Your task to perform on an android device: open the mobile data screen to see how much data has been used Image 0: 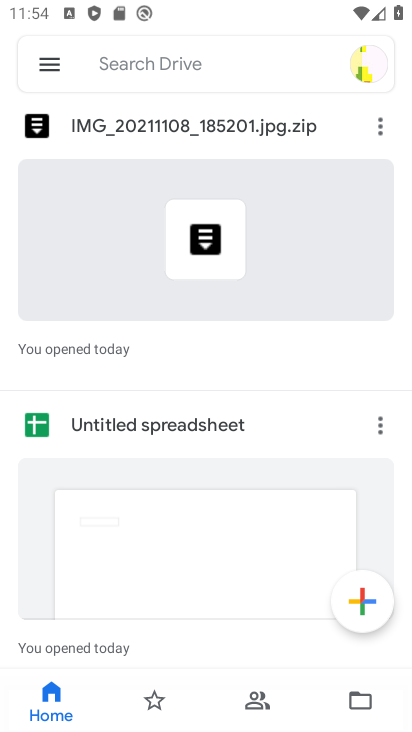
Step 0: press home button
Your task to perform on an android device: open the mobile data screen to see how much data has been used Image 1: 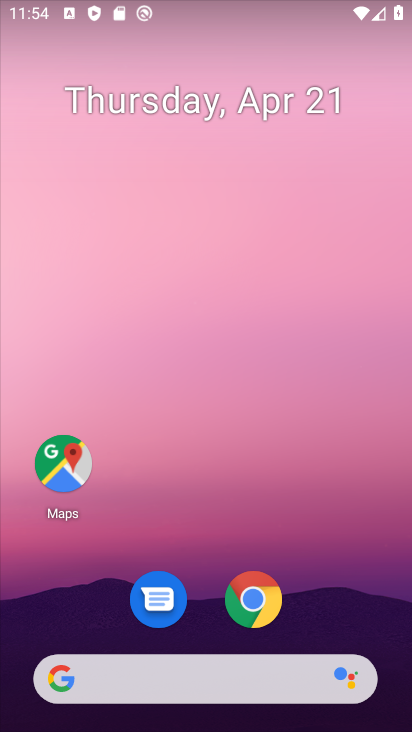
Step 1: drag from (311, 563) to (243, 0)
Your task to perform on an android device: open the mobile data screen to see how much data has been used Image 2: 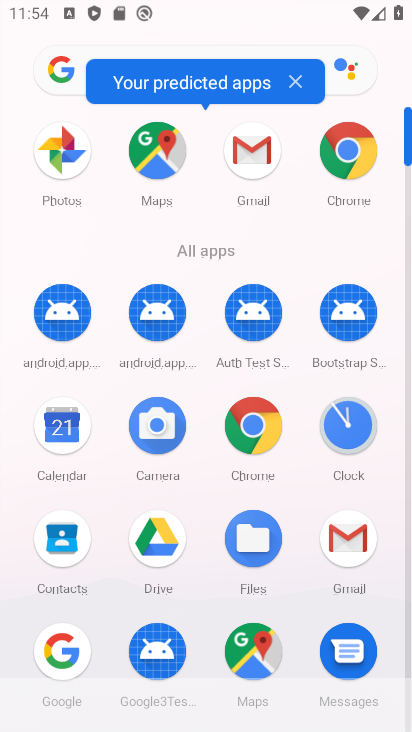
Step 2: drag from (205, 610) to (166, 110)
Your task to perform on an android device: open the mobile data screen to see how much data has been used Image 3: 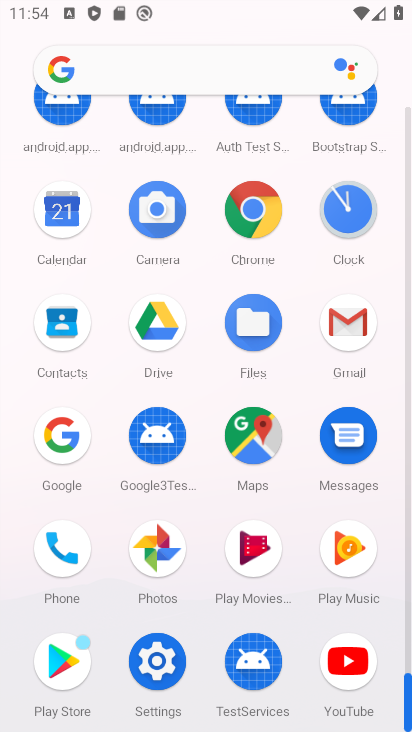
Step 3: click (155, 658)
Your task to perform on an android device: open the mobile data screen to see how much data has been used Image 4: 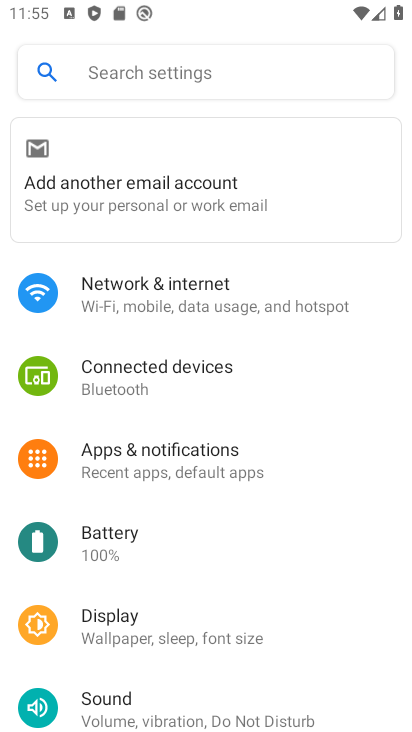
Step 4: click (218, 290)
Your task to perform on an android device: open the mobile data screen to see how much data has been used Image 5: 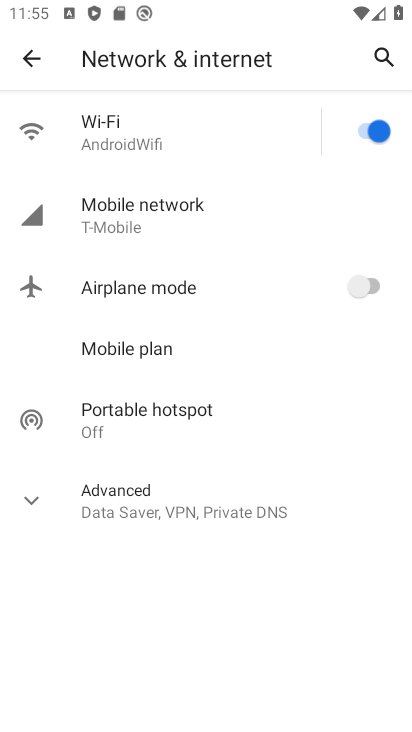
Step 5: click (157, 225)
Your task to perform on an android device: open the mobile data screen to see how much data has been used Image 6: 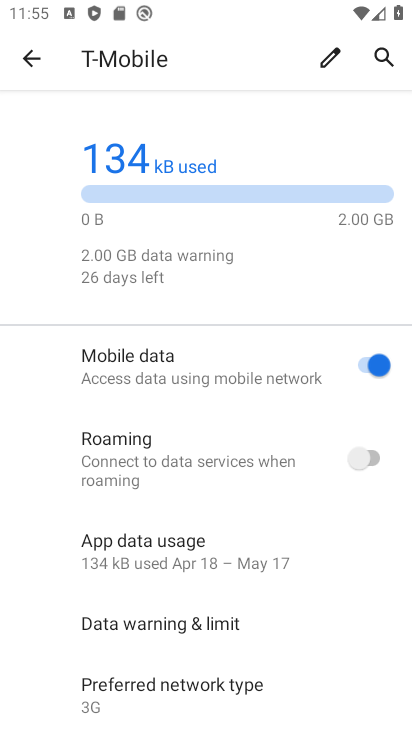
Step 6: task complete